Your task to perform on an android device: turn on data saver in the chrome app Image 0: 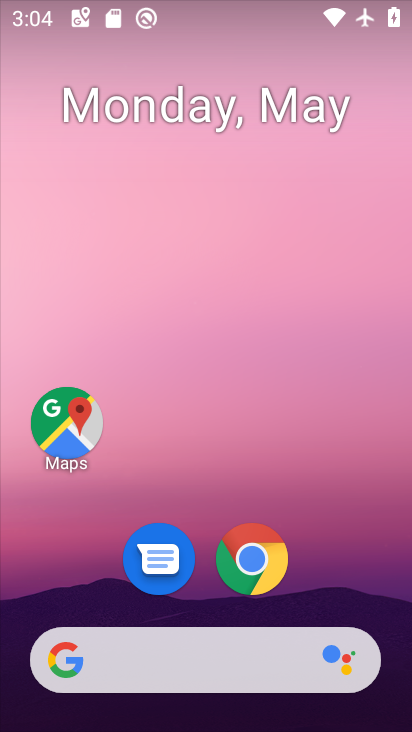
Step 0: click (251, 569)
Your task to perform on an android device: turn on data saver in the chrome app Image 1: 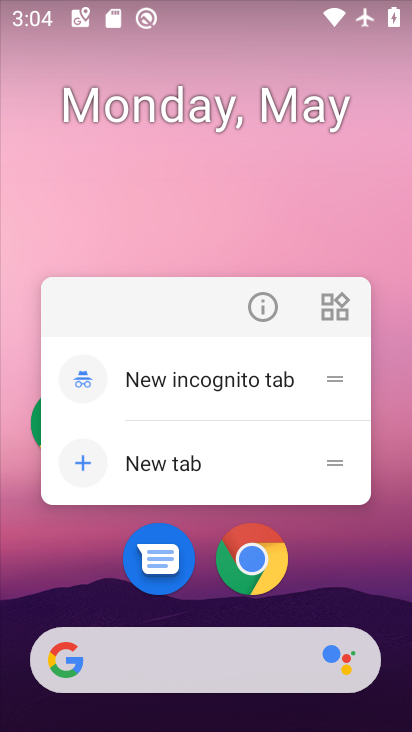
Step 1: click (253, 566)
Your task to perform on an android device: turn on data saver in the chrome app Image 2: 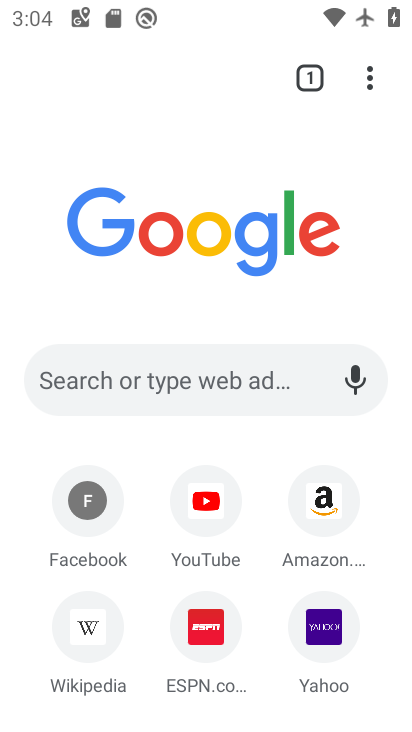
Step 2: click (370, 89)
Your task to perform on an android device: turn on data saver in the chrome app Image 3: 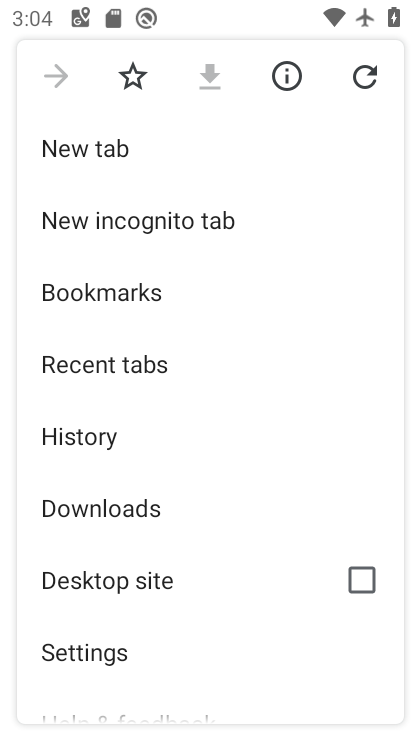
Step 3: click (83, 651)
Your task to perform on an android device: turn on data saver in the chrome app Image 4: 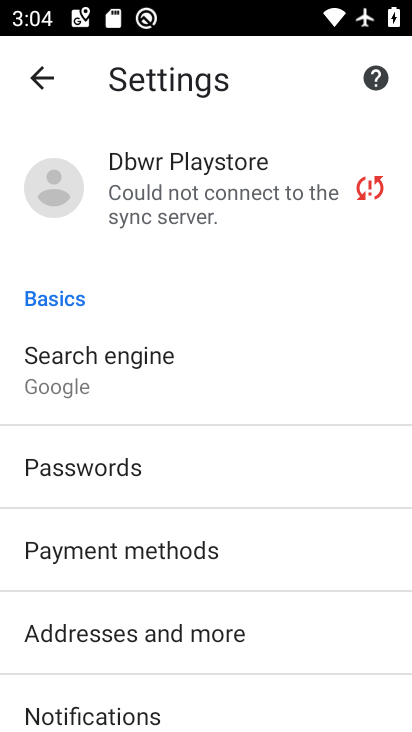
Step 4: drag from (145, 702) to (240, 412)
Your task to perform on an android device: turn on data saver in the chrome app Image 5: 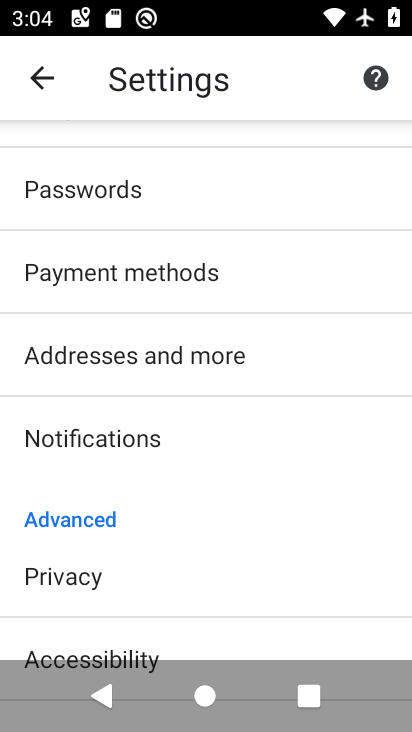
Step 5: drag from (136, 610) to (194, 314)
Your task to perform on an android device: turn on data saver in the chrome app Image 6: 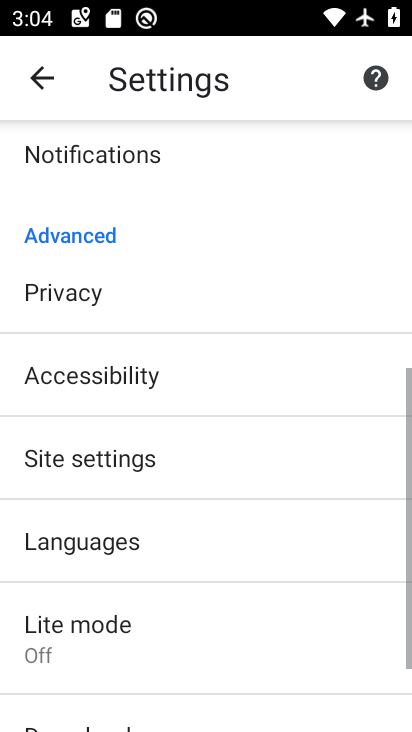
Step 6: drag from (122, 588) to (179, 470)
Your task to perform on an android device: turn on data saver in the chrome app Image 7: 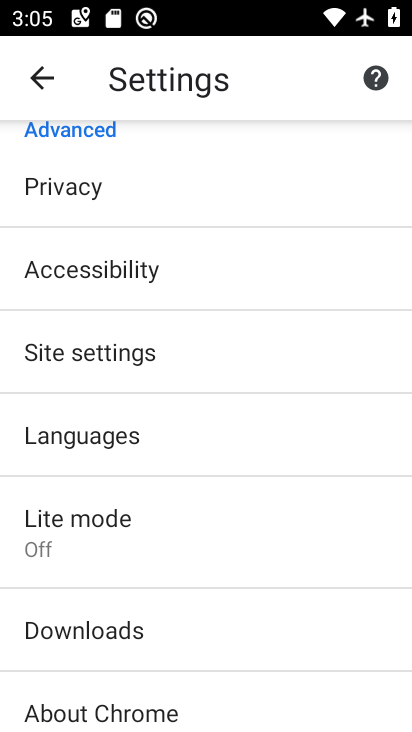
Step 7: click (75, 560)
Your task to perform on an android device: turn on data saver in the chrome app Image 8: 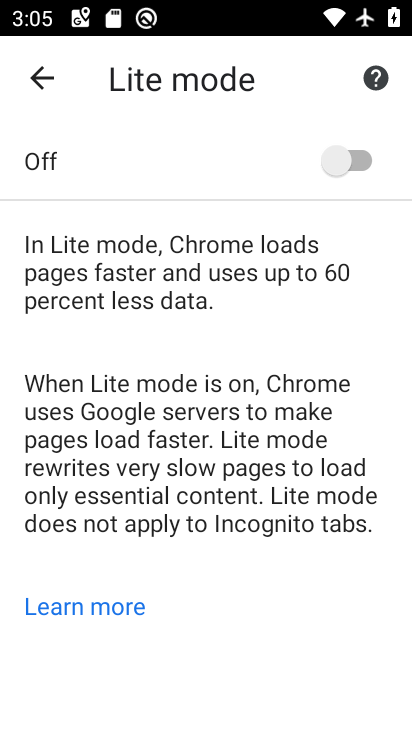
Step 8: click (363, 158)
Your task to perform on an android device: turn on data saver in the chrome app Image 9: 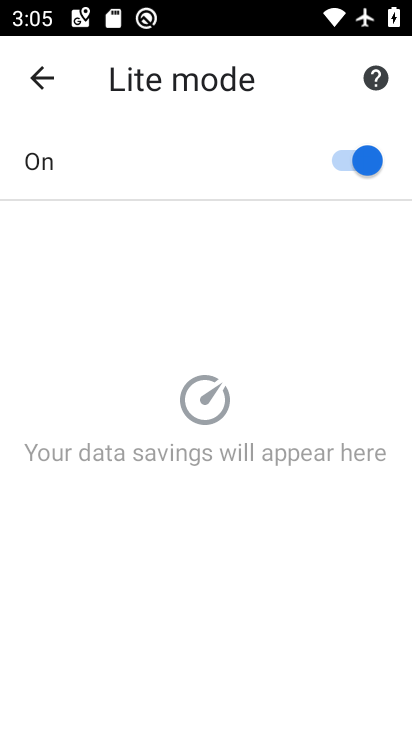
Step 9: task complete